Your task to perform on an android device: Open Youtube and go to "Your channel" Image 0: 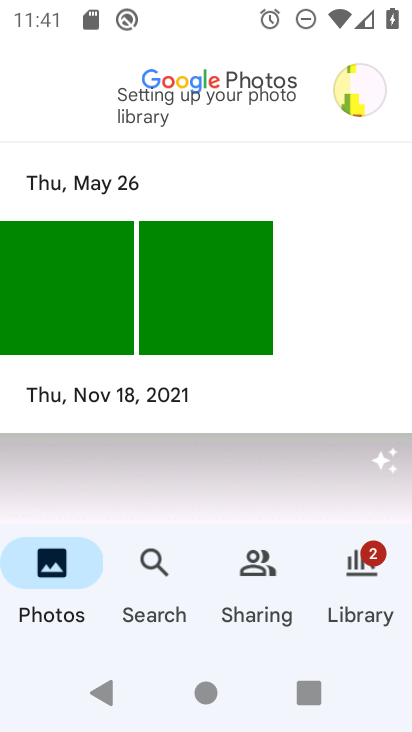
Step 0: press home button
Your task to perform on an android device: Open Youtube and go to "Your channel" Image 1: 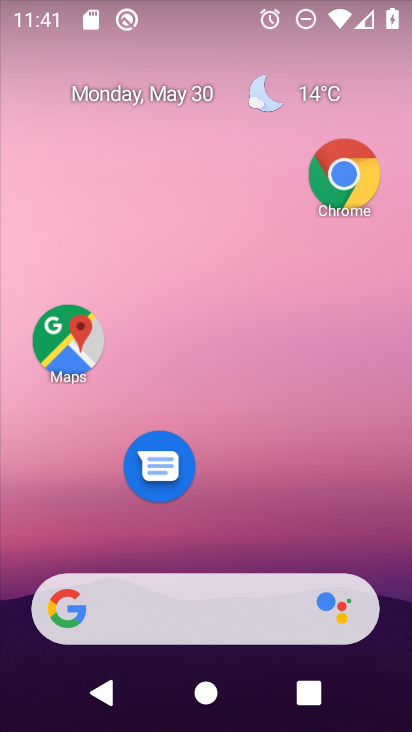
Step 1: drag from (286, 518) to (215, 91)
Your task to perform on an android device: Open Youtube and go to "Your channel" Image 2: 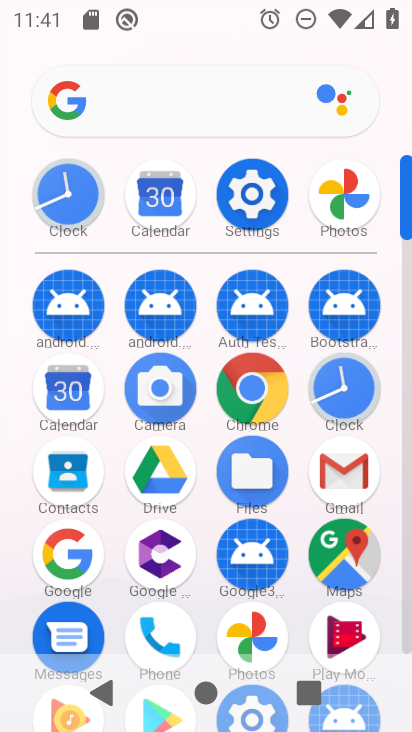
Step 2: drag from (278, 560) to (348, 125)
Your task to perform on an android device: Open Youtube and go to "Your channel" Image 3: 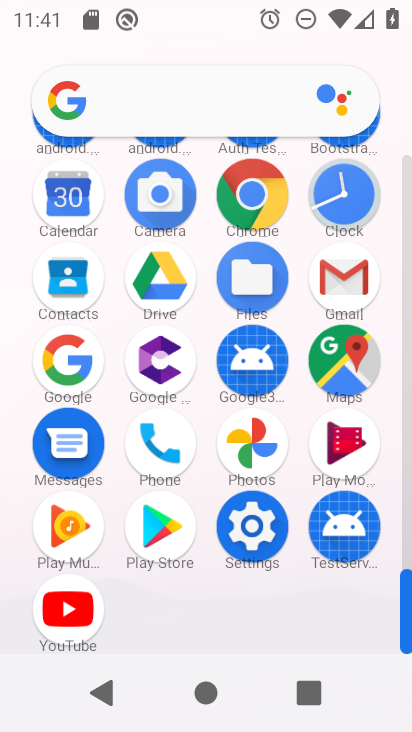
Step 3: click (81, 601)
Your task to perform on an android device: Open Youtube and go to "Your channel" Image 4: 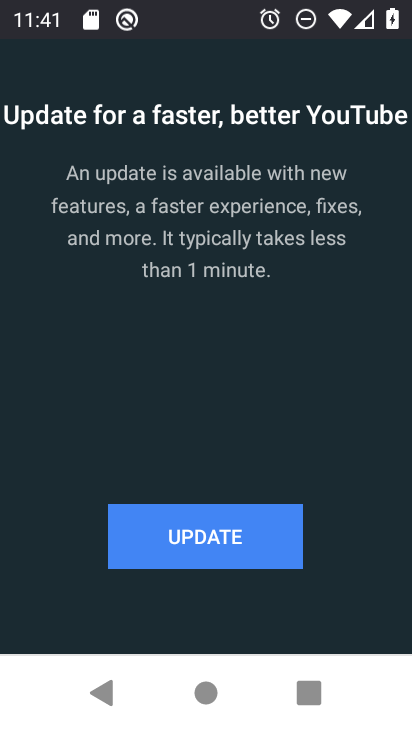
Step 4: click (161, 531)
Your task to perform on an android device: Open Youtube and go to "Your channel" Image 5: 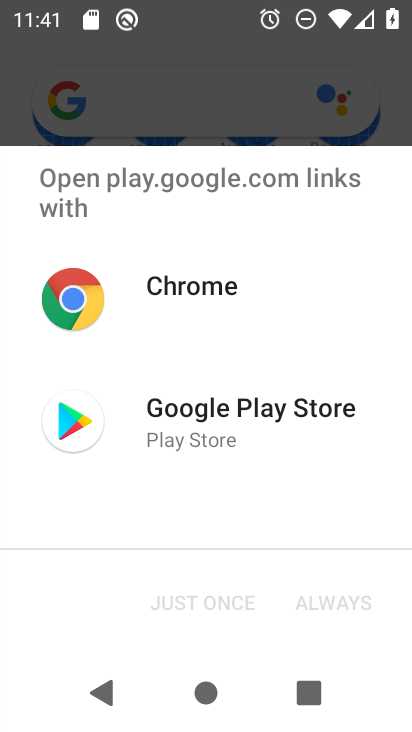
Step 5: click (183, 402)
Your task to perform on an android device: Open Youtube and go to "Your channel" Image 6: 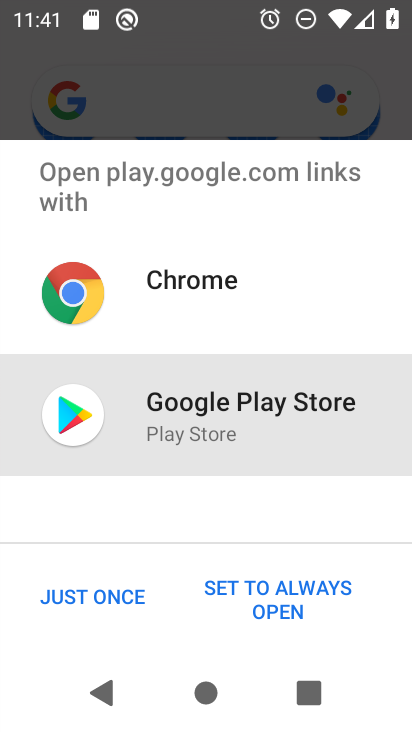
Step 6: click (251, 591)
Your task to perform on an android device: Open Youtube and go to "Your channel" Image 7: 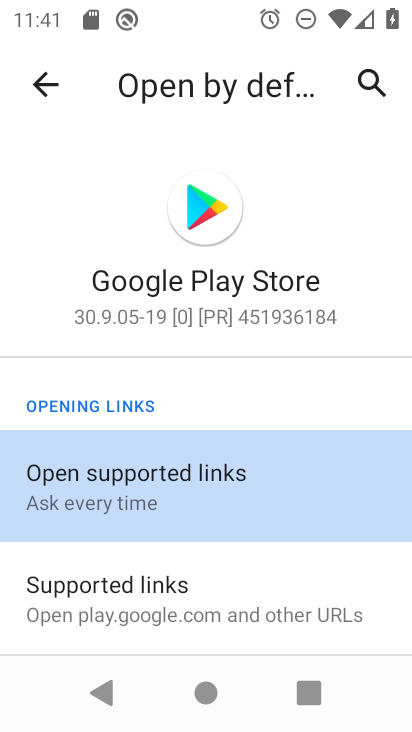
Step 7: drag from (202, 589) to (196, 297)
Your task to perform on an android device: Open Youtube and go to "Your channel" Image 8: 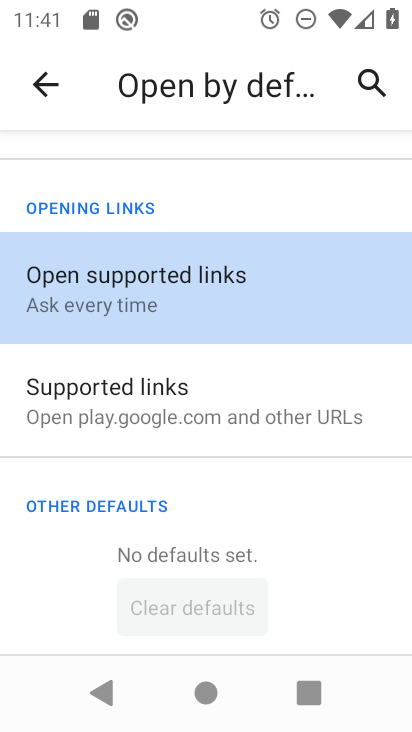
Step 8: press back button
Your task to perform on an android device: Open Youtube and go to "Your channel" Image 9: 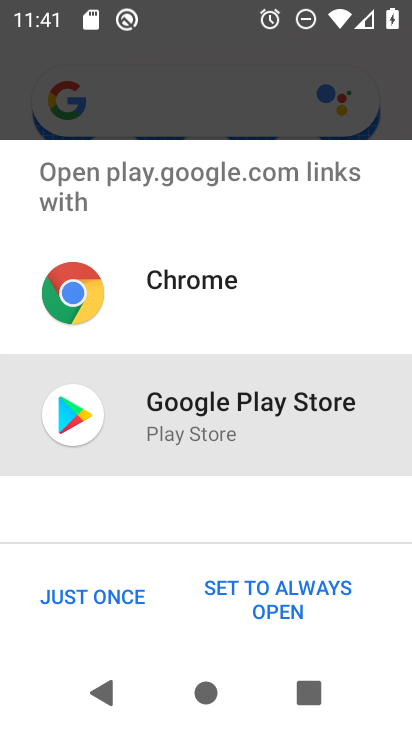
Step 9: click (100, 587)
Your task to perform on an android device: Open Youtube and go to "Your channel" Image 10: 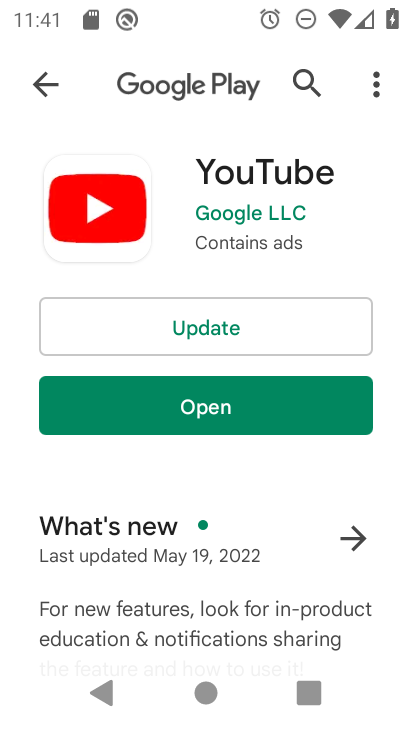
Step 10: click (224, 316)
Your task to perform on an android device: Open Youtube and go to "Your channel" Image 11: 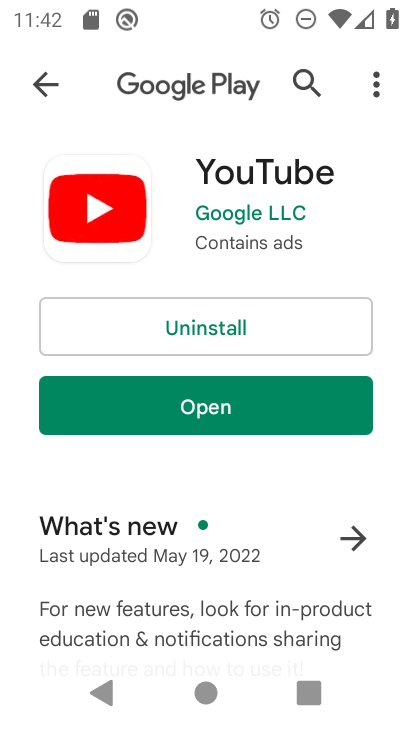
Step 11: click (210, 414)
Your task to perform on an android device: Open Youtube and go to "Your channel" Image 12: 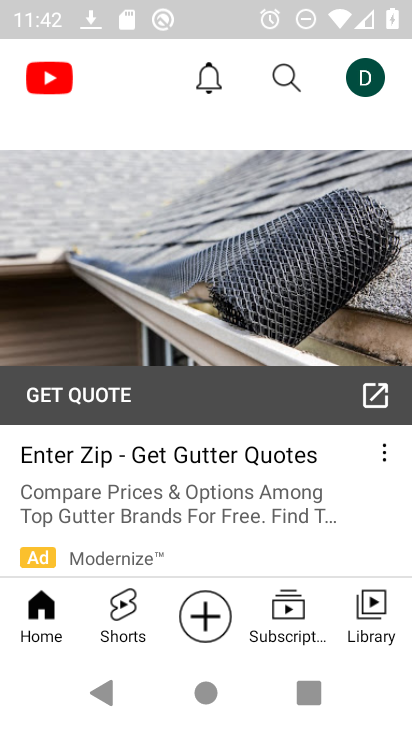
Step 12: click (372, 612)
Your task to perform on an android device: Open Youtube and go to "Your channel" Image 13: 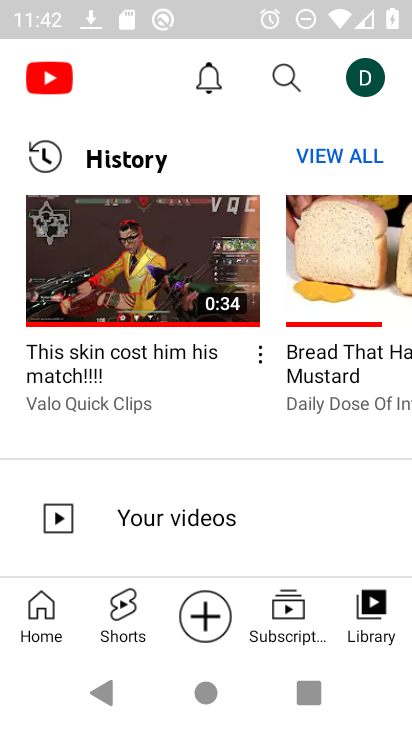
Step 13: click (368, 92)
Your task to perform on an android device: Open Youtube and go to "Your channel" Image 14: 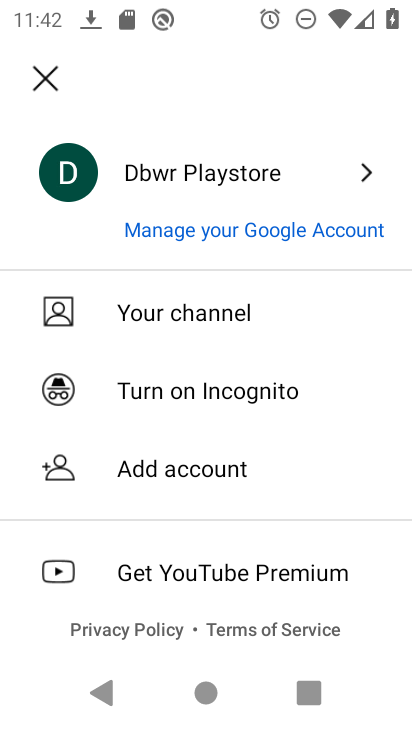
Step 14: click (229, 313)
Your task to perform on an android device: Open Youtube and go to "Your channel" Image 15: 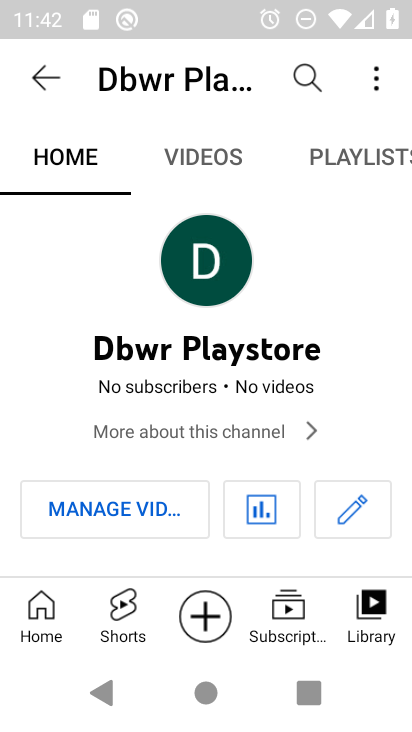
Step 15: task complete